Your task to perform on an android device: Show me popular games on the Play Store Image 0: 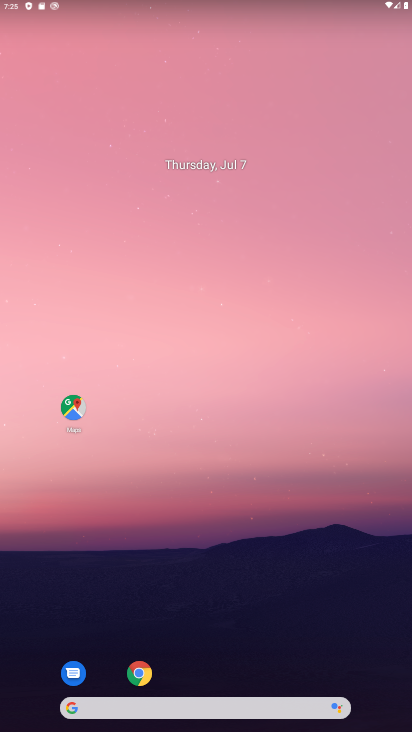
Step 0: drag from (235, 657) to (198, 113)
Your task to perform on an android device: Show me popular games on the Play Store Image 1: 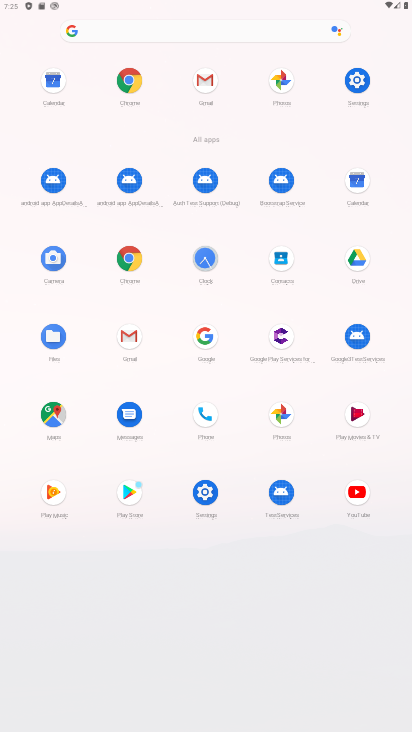
Step 1: click (128, 495)
Your task to perform on an android device: Show me popular games on the Play Store Image 2: 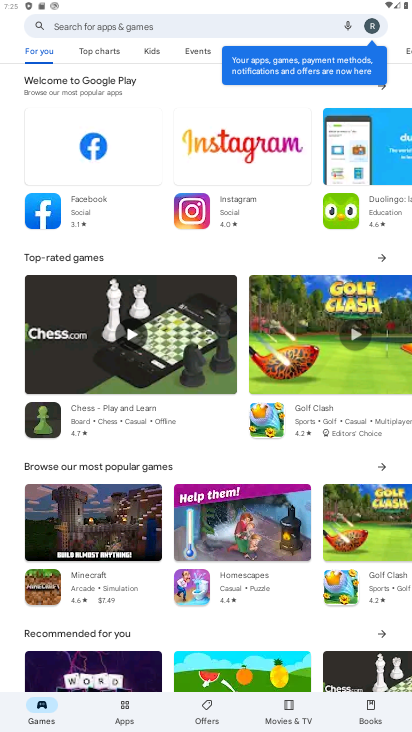
Step 2: click (150, 26)
Your task to perform on an android device: Show me popular games on the Play Store Image 3: 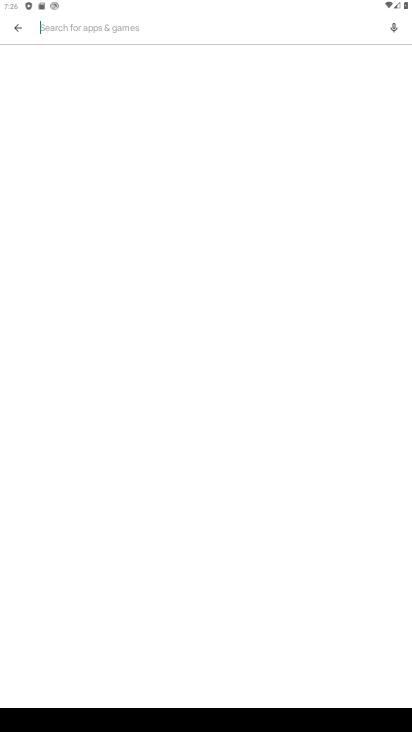
Step 3: type "popular games"
Your task to perform on an android device: Show me popular games on the Play Store Image 4: 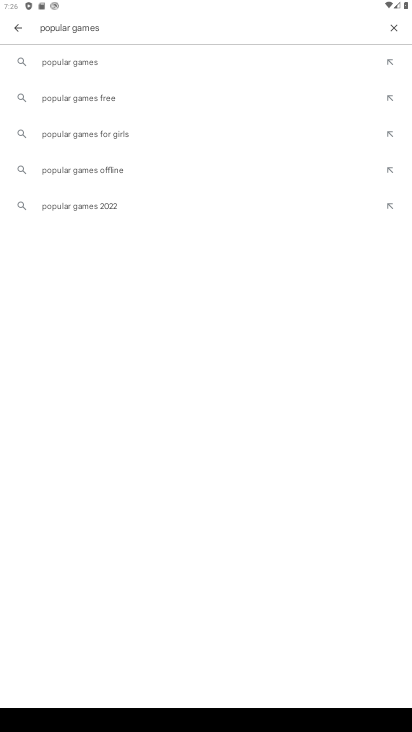
Step 4: click (75, 62)
Your task to perform on an android device: Show me popular games on the Play Store Image 5: 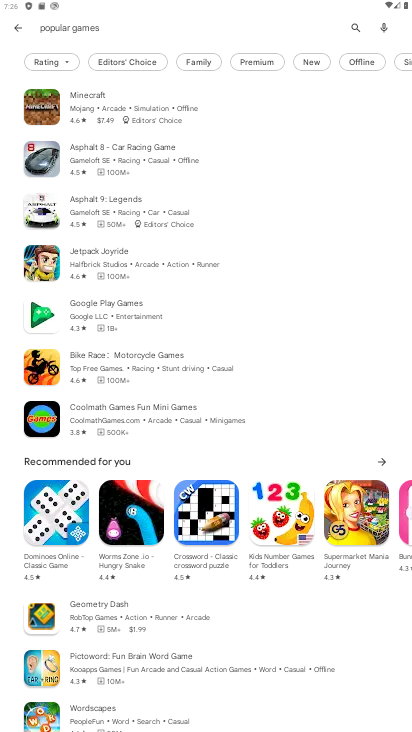
Step 5: task complete